Your task to perform on an android device: Open Yahoo.com Image 0: 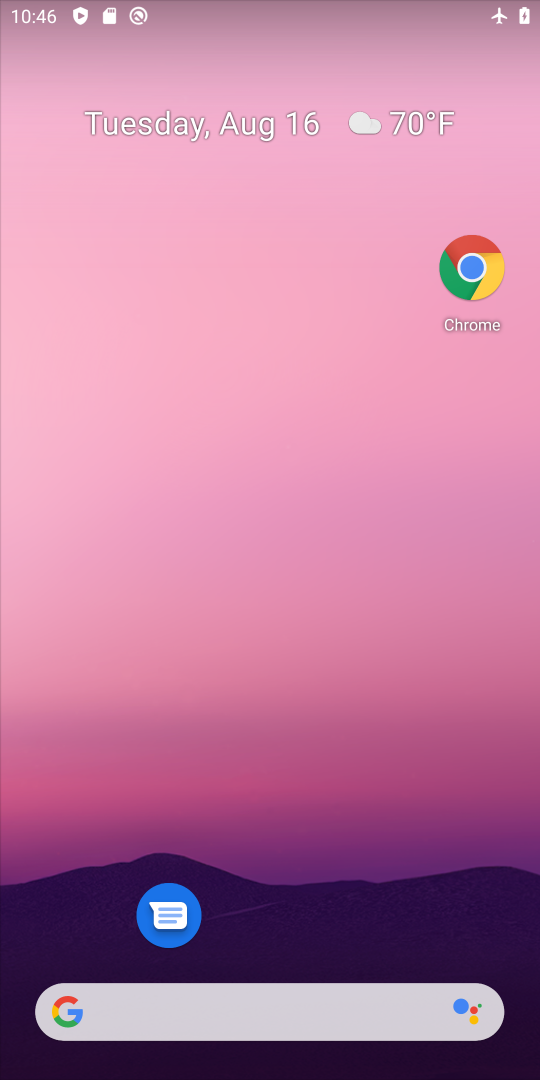
Step 0: click (466, 252)
Your task to perform on an android device: Open Yahoo.com Image 1: 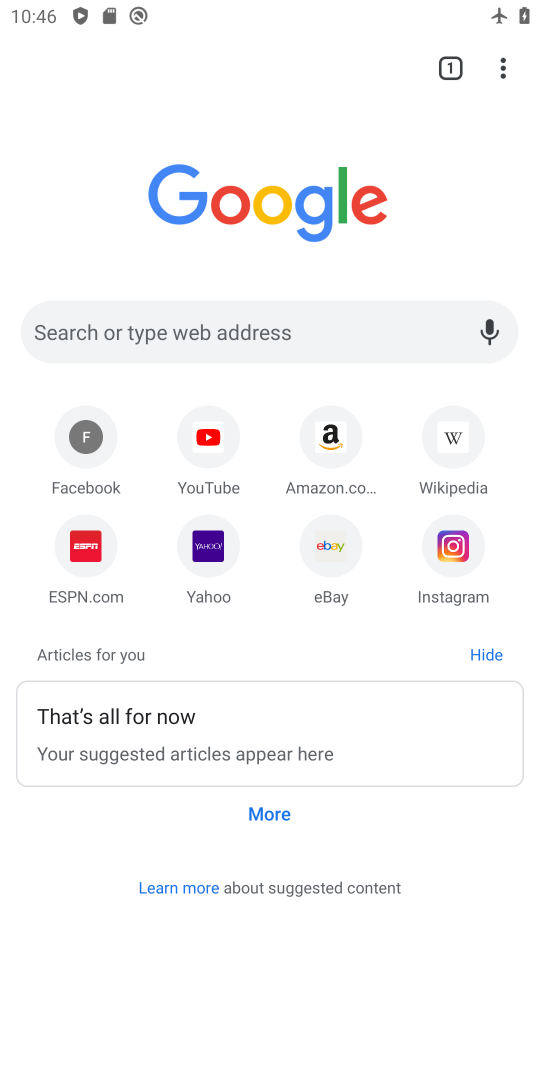
Step 1: click (207, 534)
Your task to perform on an android device: Open Yahoo.com Image 2: 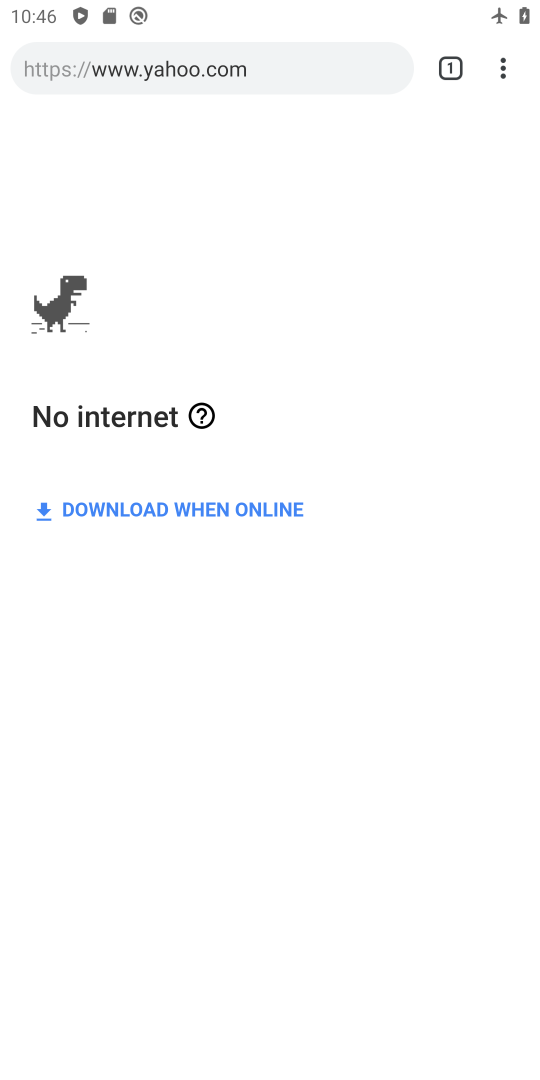
Step 2: task complete